Your task to perform on an android device: Search for vegetarian restaurants on Maps Image 0: 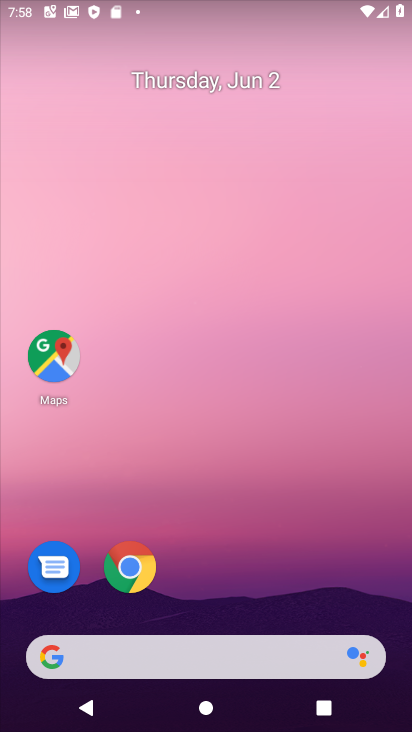
Step 0: click (52, 357)
Your task to perform on an android device: Search for vegetarian restaurants on Maps Image 1: 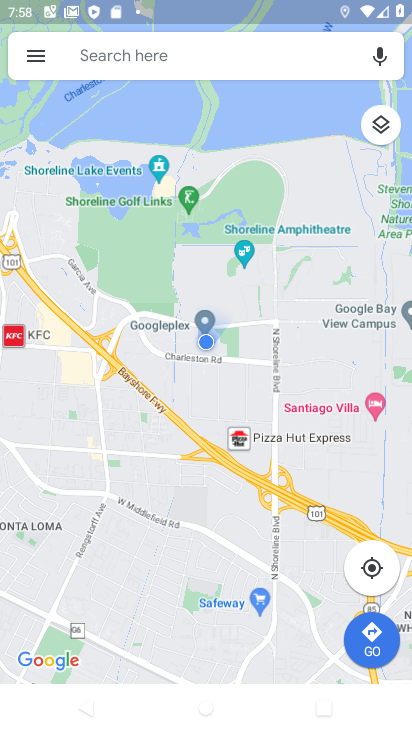
Step 1: click (175, 58)
Your task to perform on an android device: Search for vegetarian restaurants on Maps Image 2: 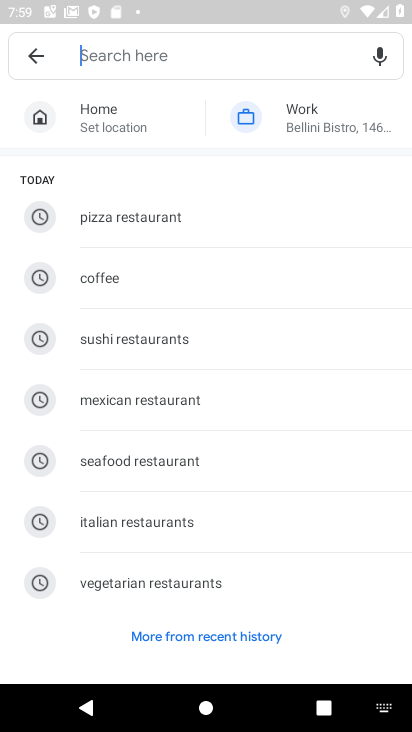
Step 2: type "vegetarian restaurants"
Your task to perform on an android device: Search for vegetarian restaurants on Maps Image 3: 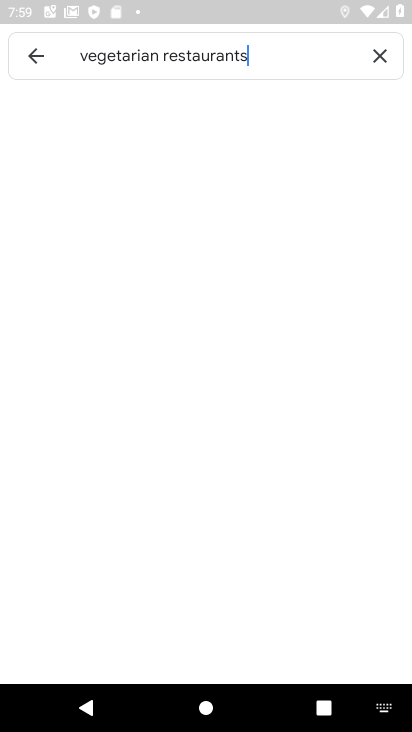
Step 3: type ""
Your task to perform on an android device: Search for vegetarian restaurants on Maps Image 4: 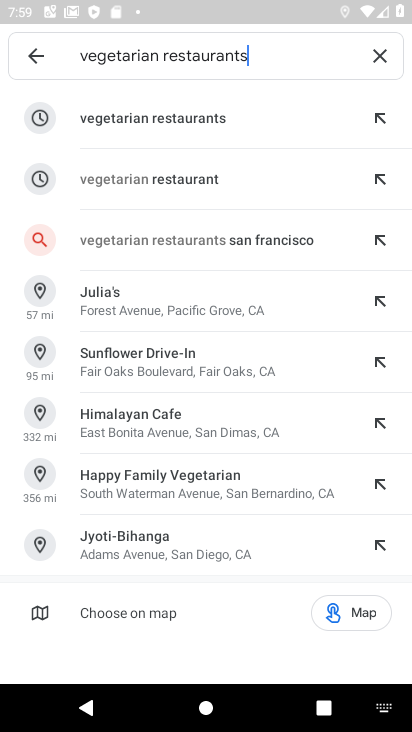
Step 4: click (213, 121)
Your task to perform on an android device: Search for vegetarian restaurants on Maps Image 5: 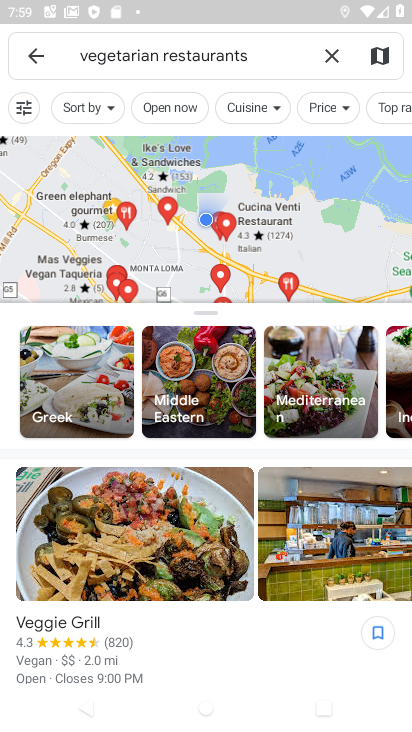
Step 5: task complete